Your task to perform on an android device: visit the assistant section in the google photos Image 0: 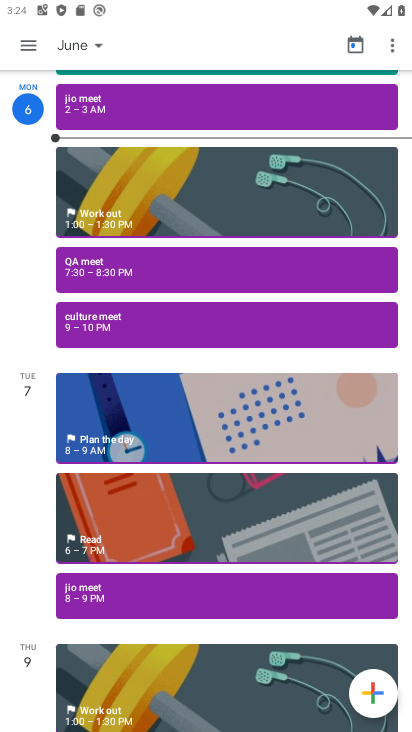
Step 0: press back button
Your task to perform on an android device: visit the assistant section in the google photos Image 1: 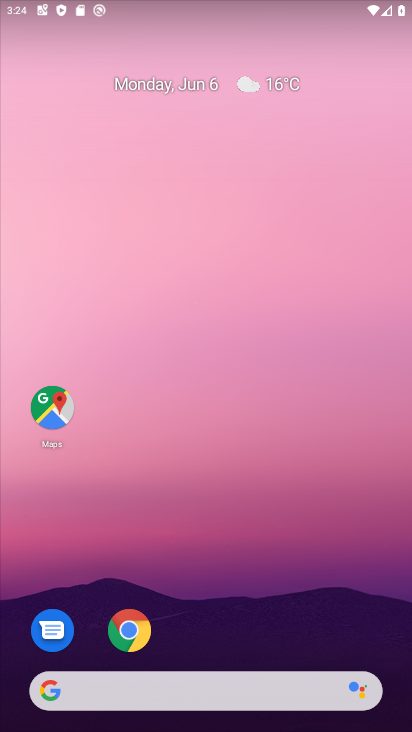
Step 1: drag from (222, 610) to (277, 18)
Your task to perform on an android device: visit the assistant section in the google photos Image 2: 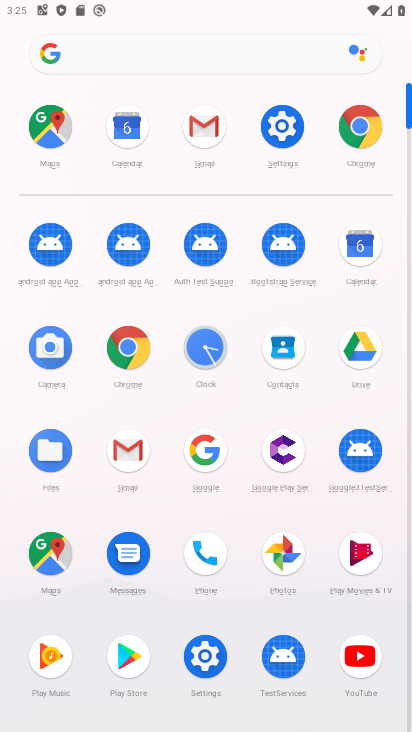
Step 2: click (270, 555)
Your task to perform on an android device: visit the assistant section in the google photos Image 3: 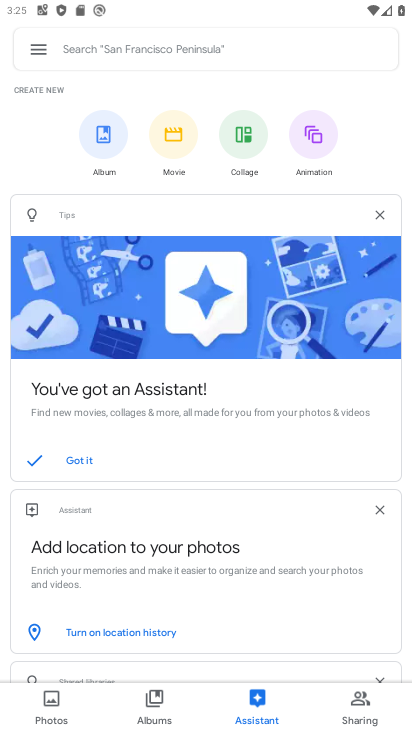
Step 3: click (258, 694)
Your task to perform on an android device: visit the assistant section in the google photos Image 4: 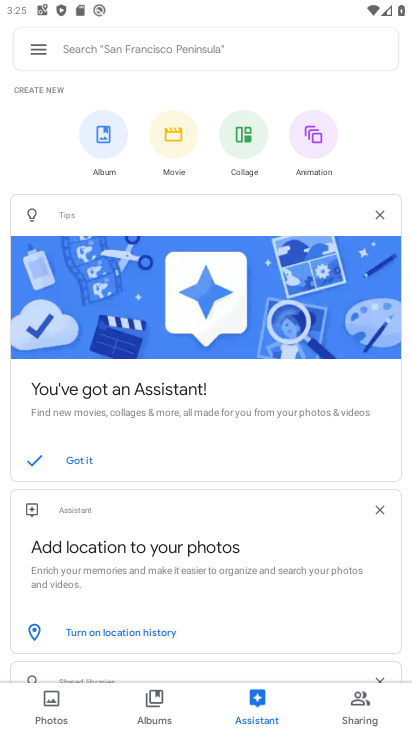
Step 4: task complete